Your task to perform on an android device: Look up the best rated coffee maker on Lowe's. Image 0: 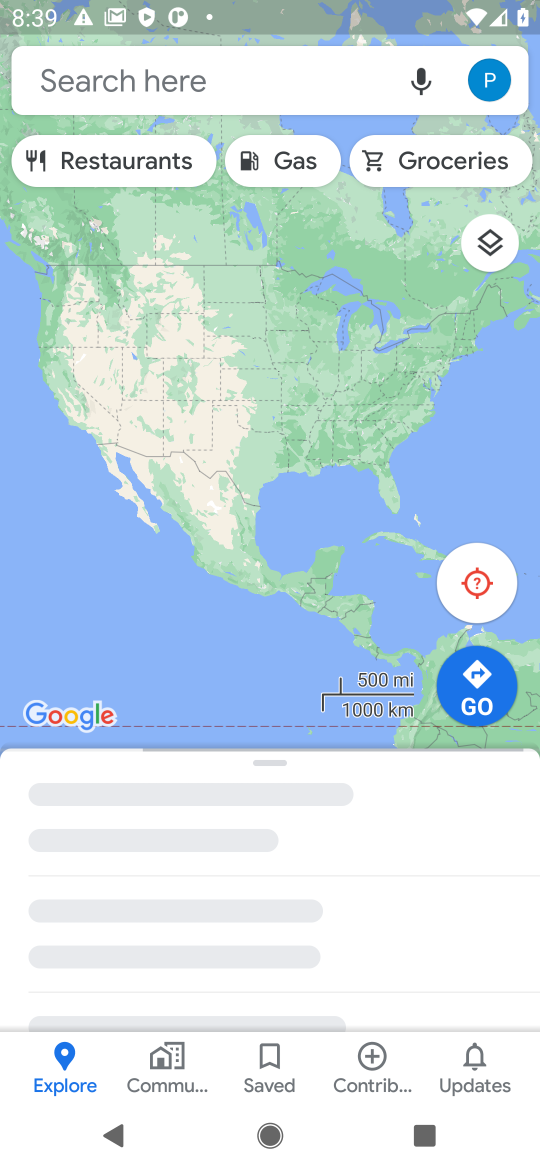
Step 0: press home button
Your task to perform on an android device: Look up the best rated coffee maker on Lowe's. Image 1: 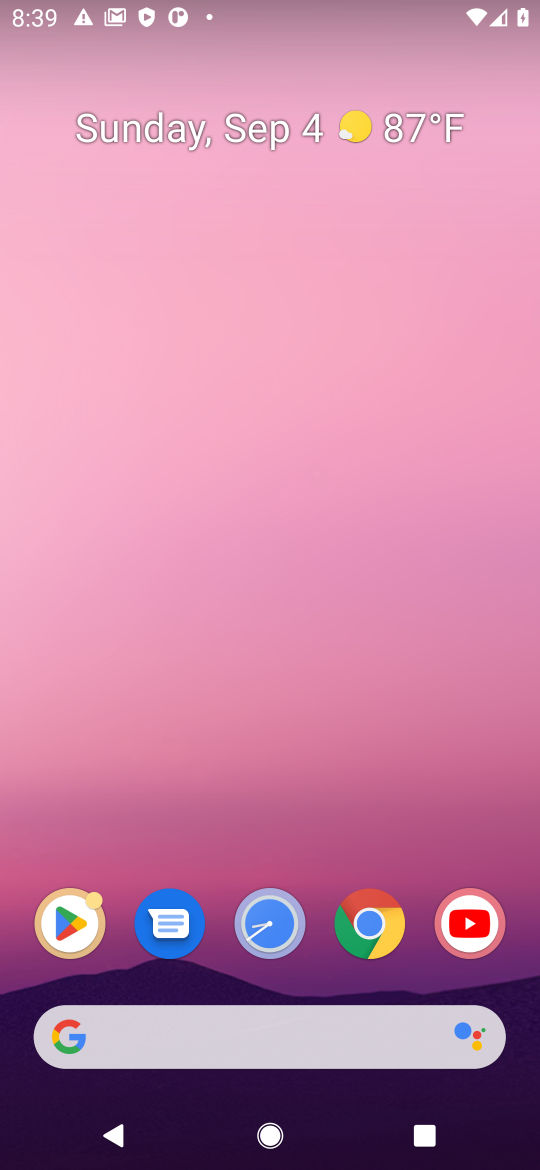
Step 1: click (386, 1041)
Your task to perform on an android device: Look up the best rated coffee maker on Lowe's. Image 2: 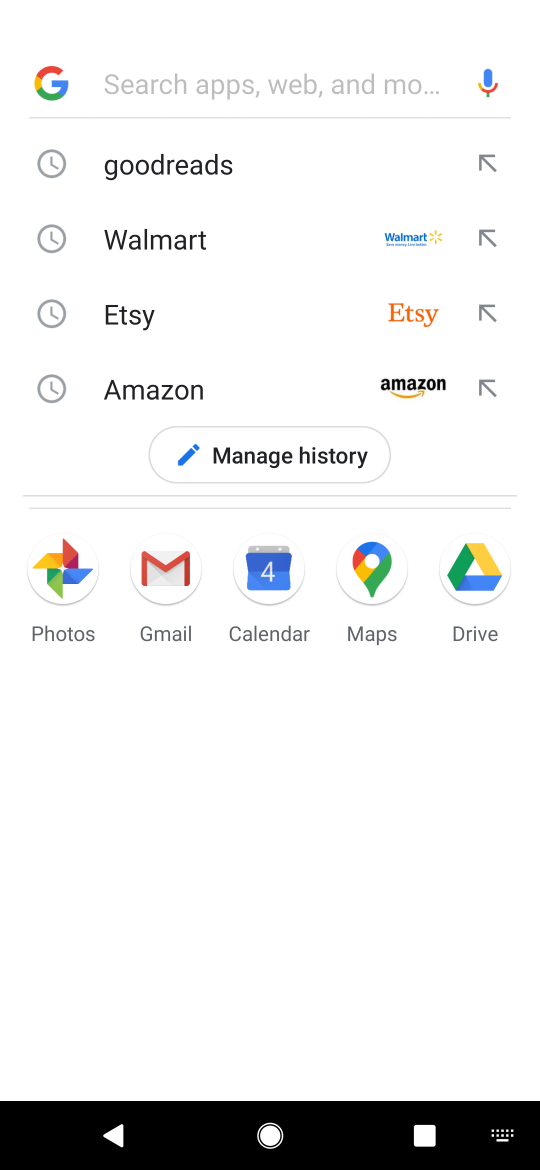
Step 2: press enter
Your task to perform on an android device: Look up the best rated coffee maker on Lowe's. Image 3: 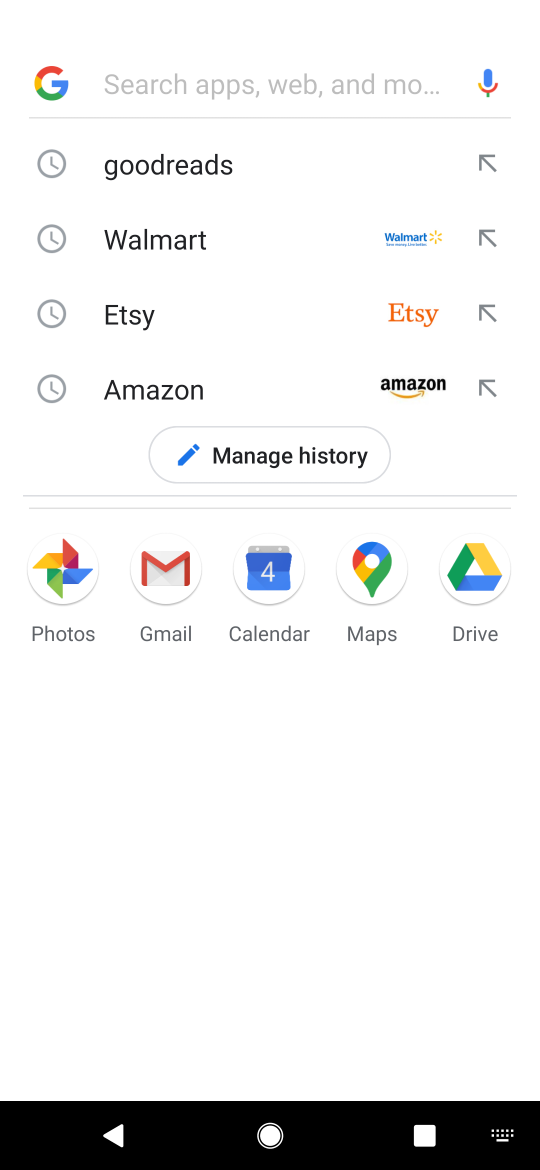
Step 3: type "lowes"
Your task to perform on an android device: Look up the best rated coffee maker on Lowe's. Image 4: 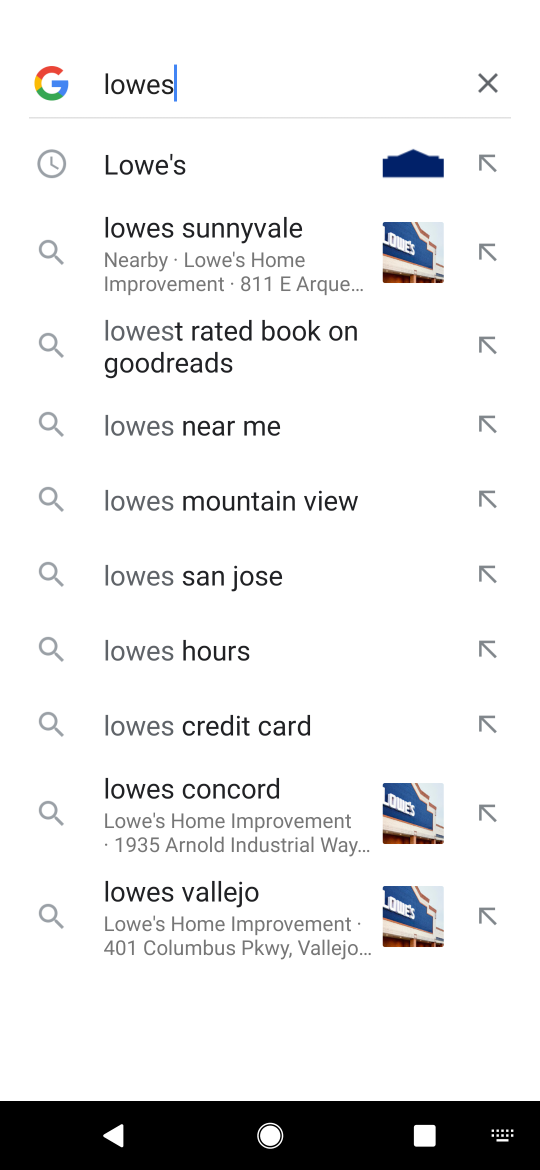
Step 4: click (175, 154)
Your task to perform on an android device: Look up the best rated coffee maker on Lowe's. Image 5: 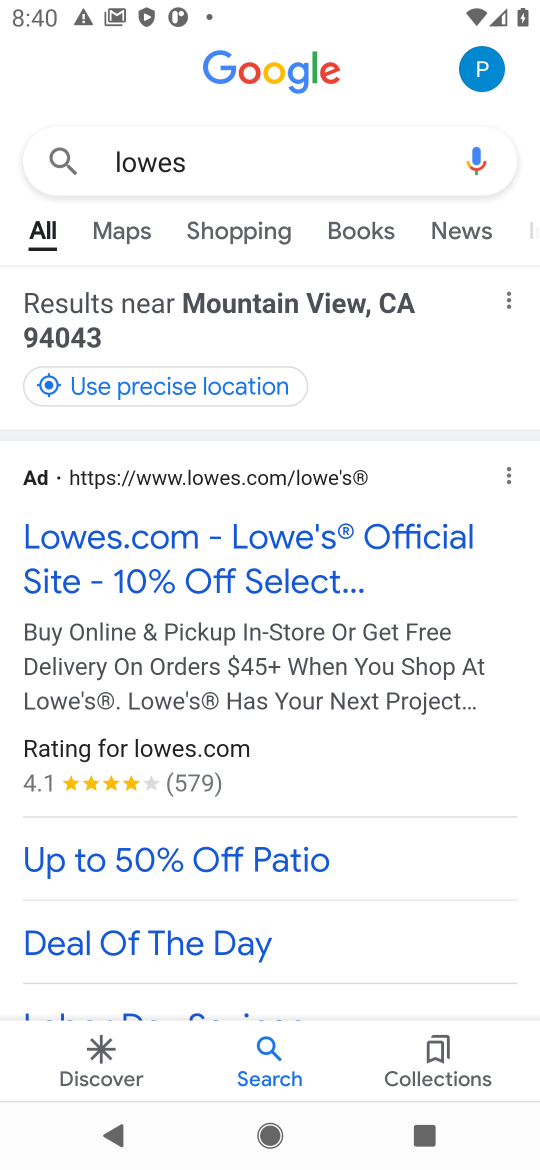
Step 5: click (191, 546)
Your task to perform on an android device: Look up the best rated coffee maker on Lowe's. Image 6: 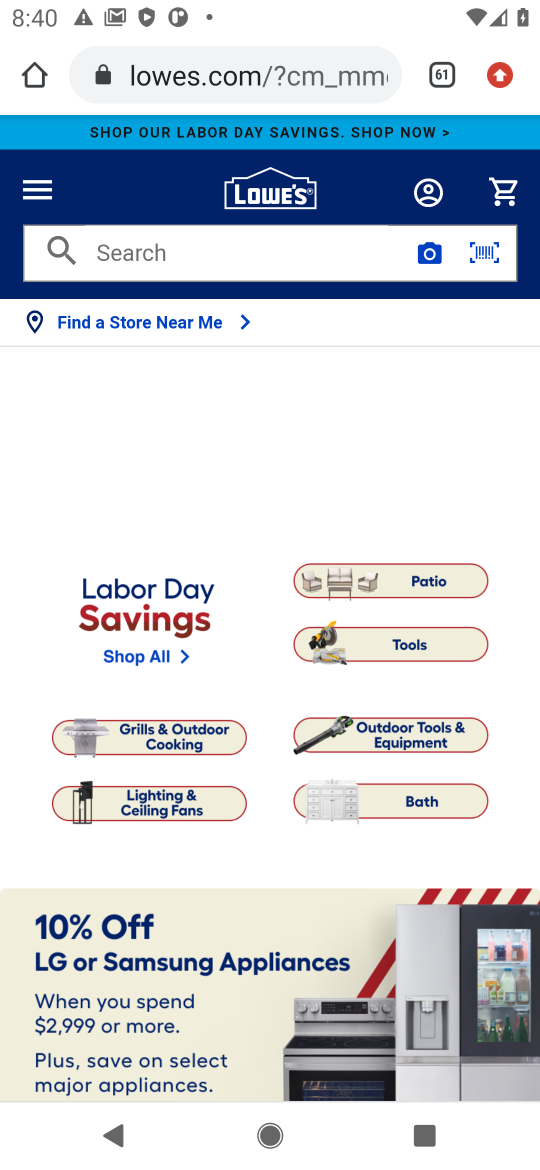
Step 6: click (162, 255)
Your task to perform on an android device: Look up the best rated coffee maker on Lowe's. Image 7: 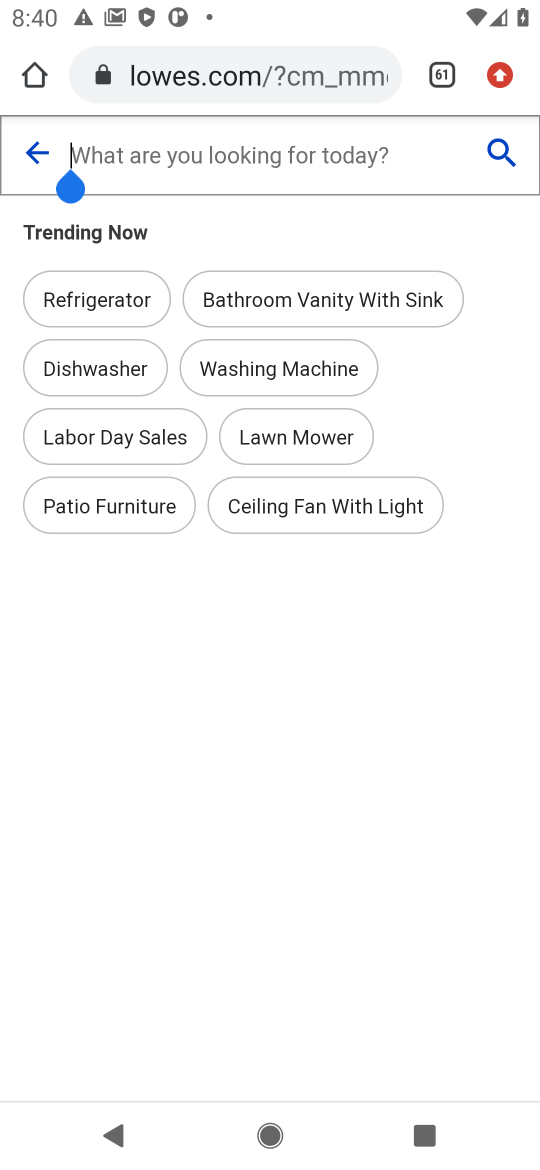
Step 7: press enter
Your task to perform on an android device: Look up the best rated coffee maker on Lowe's. Image 8: 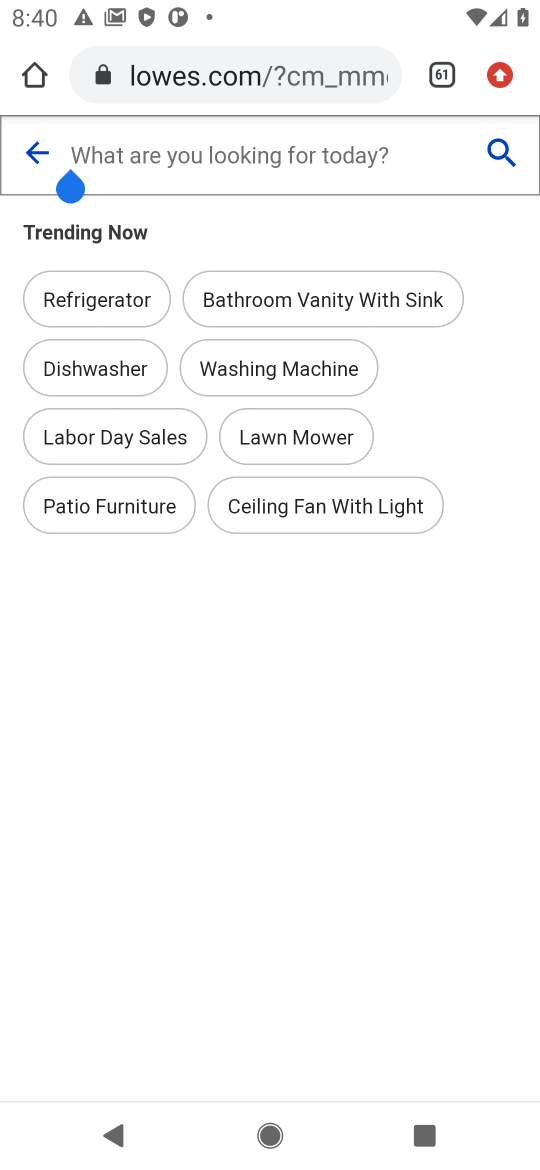
Step 8: type "best rated coffee maker"
Your task to perform on an android device: Look up the best rated coffee maker on Lowe's. Image 9: 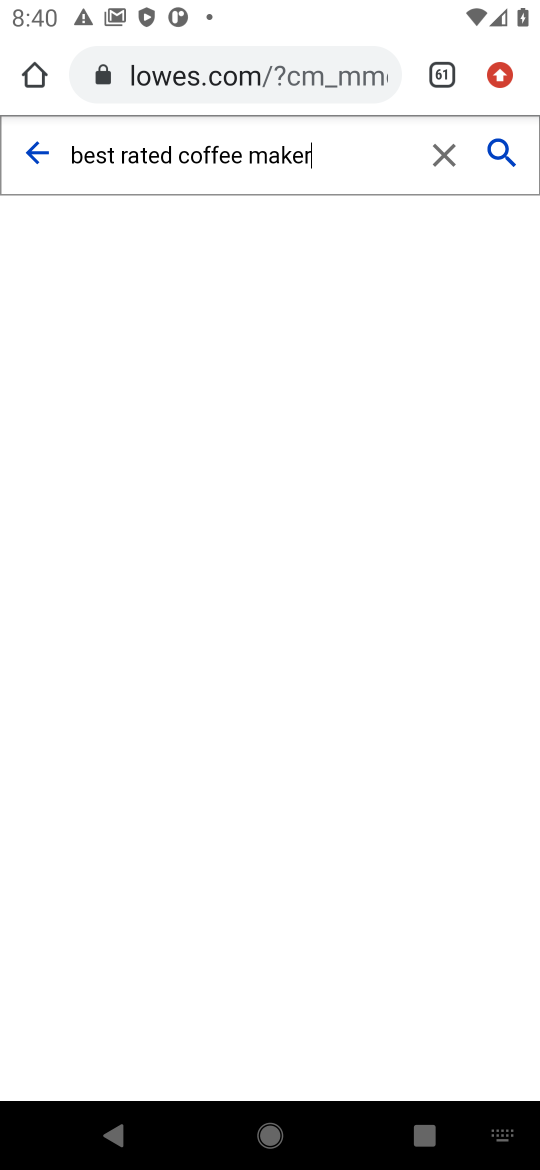
Step 9: click (498, 146)
Your task to perform on an android device: Look up the best rated coffee maker on Lowe's. Image 10: 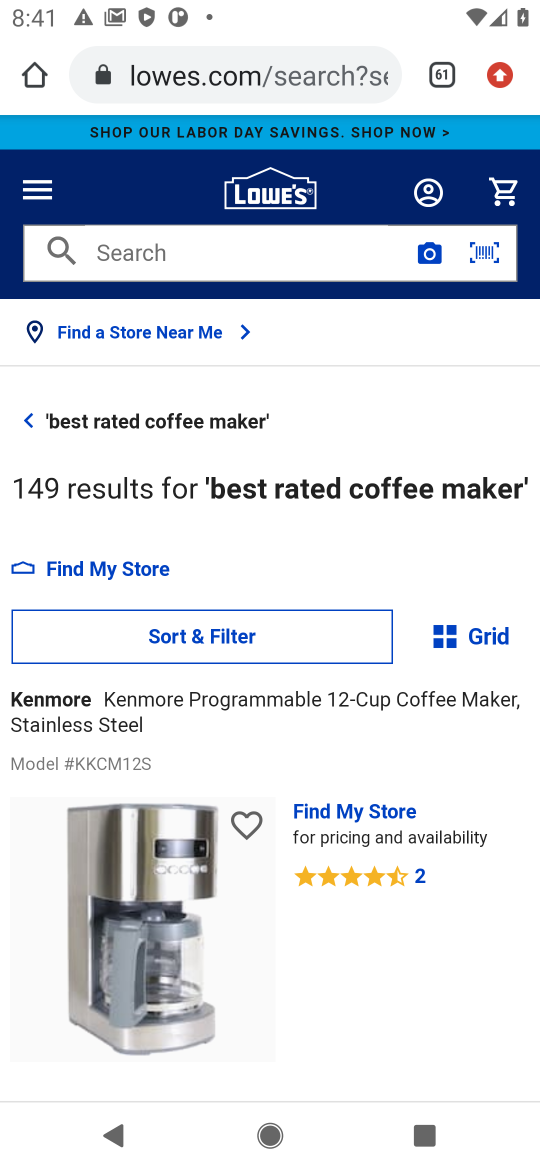
Step 10: task complete